Your task to perform on an android device: turn on location history Image 0: 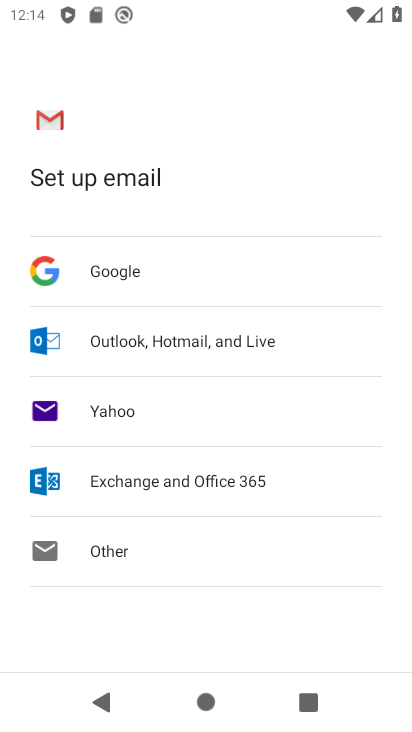
Step 0: press home button
Your task to perform on an android device: turn on location history Image 1: 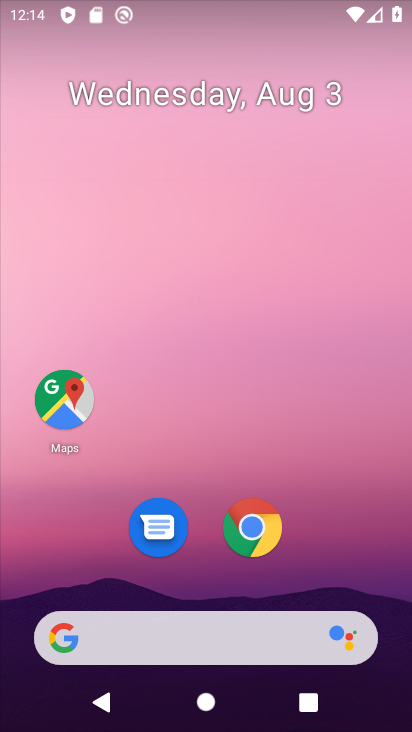
Step 1: drag from (202, 410) to (227, 15)
Your task to perform on an android device: turn on location history Image 2: 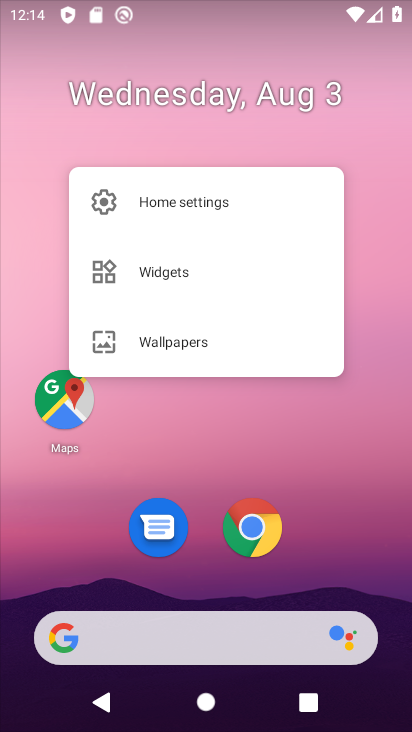
Step 2: click (213, 249)
Your task to perform on an android device: turn on location history Image 3: 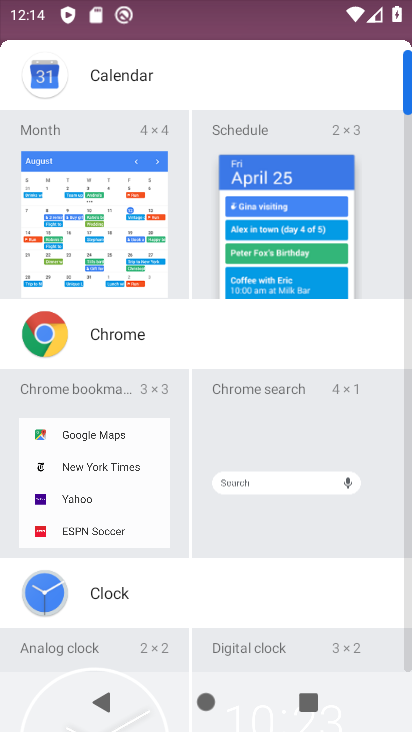
Step 3: click (210, 590)
Your task to perform on an android device: turn on location history Image 4: 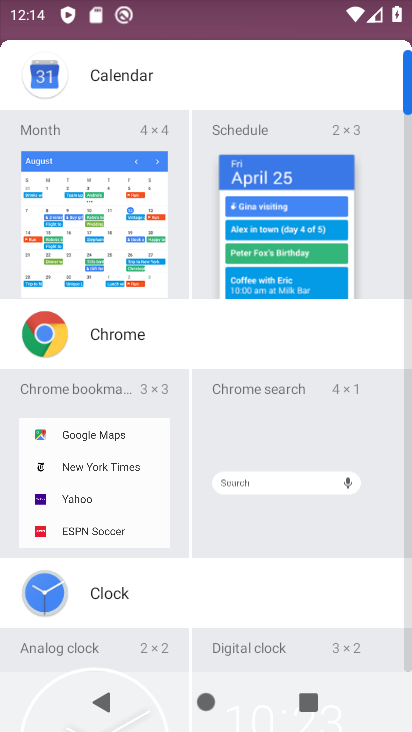
Step 4: press home button
Your task to perform on an android device: turn on location history Image 5: 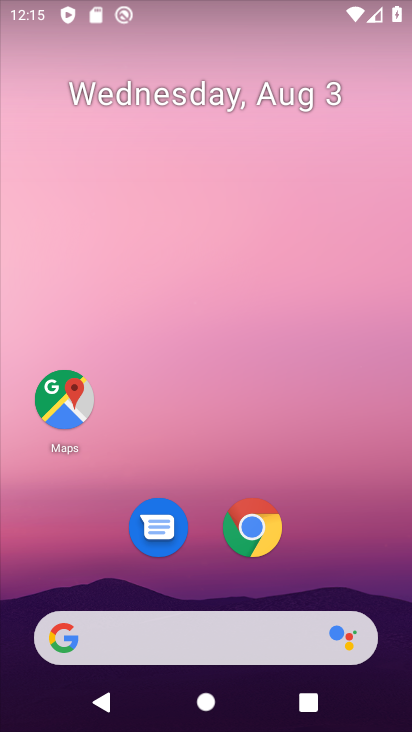
Step 5: drag from (214, 540) to (240, 0)
Your task to perform on an android device: turn on location history Image 6: 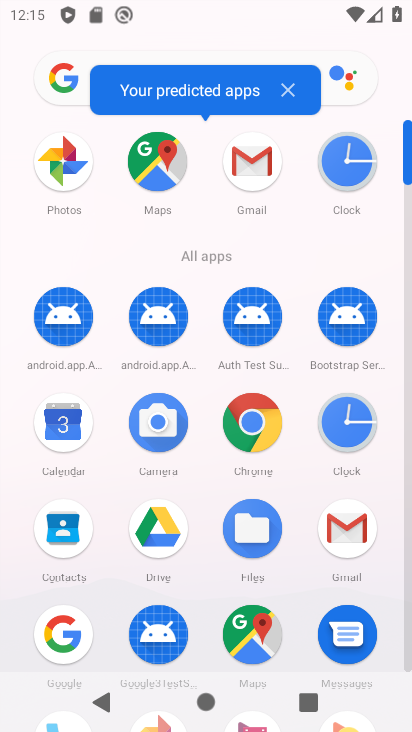
Step 6: drag from (189, 577) to (190, 351)
Your task to perform on an android device: turn on location history Image 7: 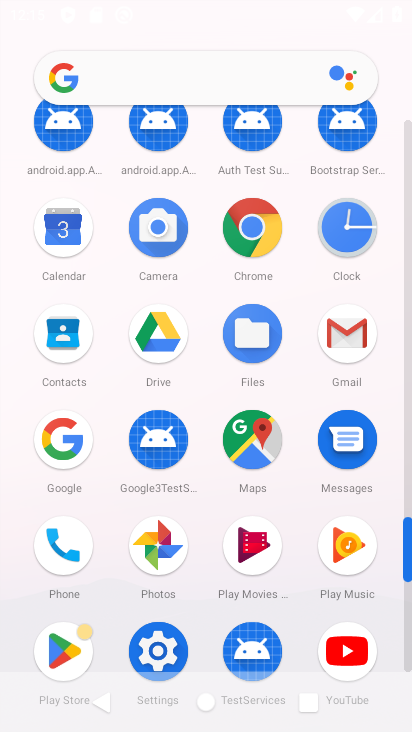
Step 7: click (159, 646)
Your task to perform on an android device: turn on location history Image 8: 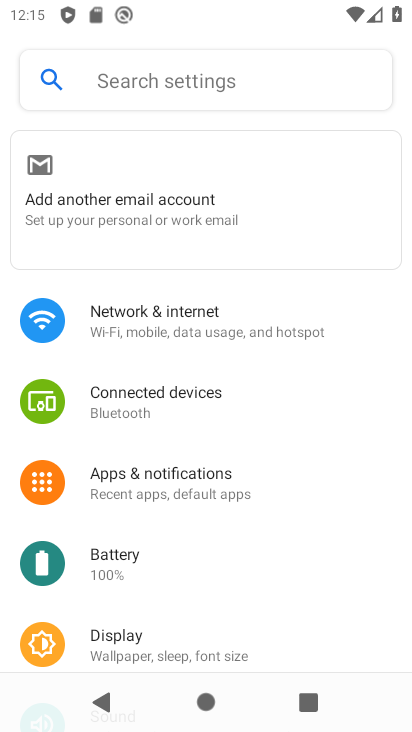
Step 8: drag from (184, 590) to (205, 251)
Your task to perform on an android device: turn on location history Image 9: 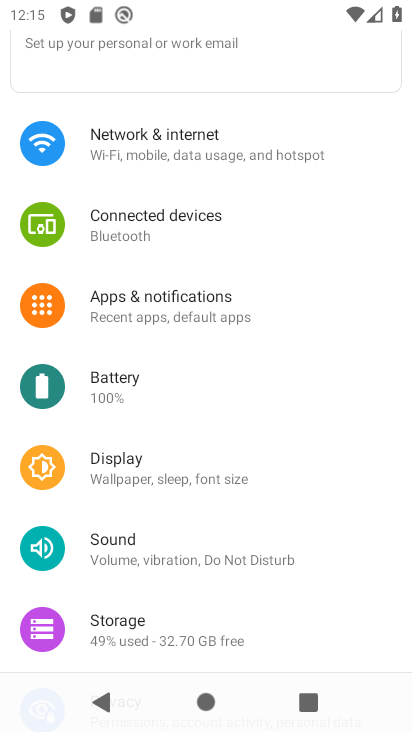
Step 9: drag from (161, 586) to (179, 365)
Your task to perform on an android device: turn on location history Image 10: 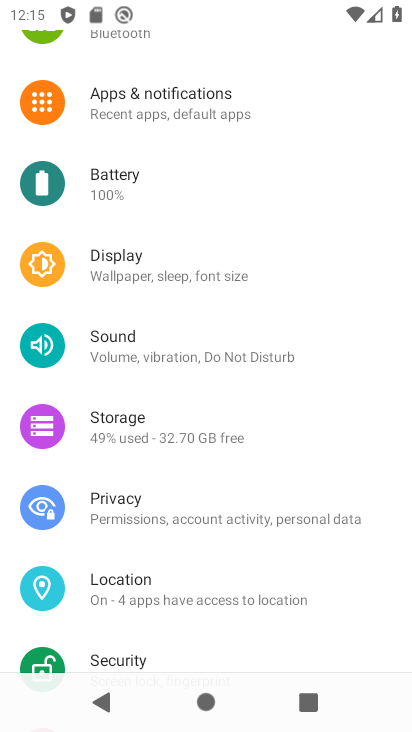
Step 10: click (153, 584)
Your task to perform on an android device: turn on location history Image 11: 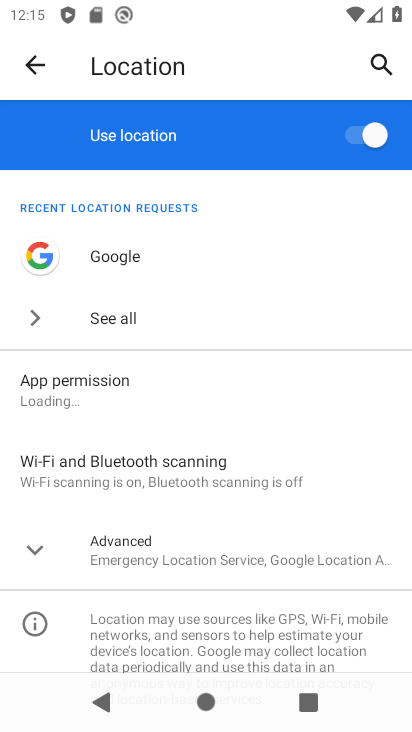
Step 11: task complete